Your task to perform on an android device: What's the weather? Image 0: 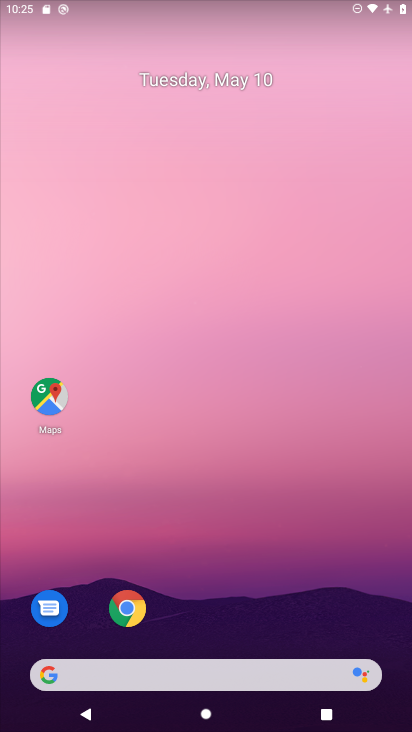
Step 0: drag from (227, 575) to (200, 267)
Your task to perform on an android device: What's the weather? Image 1: 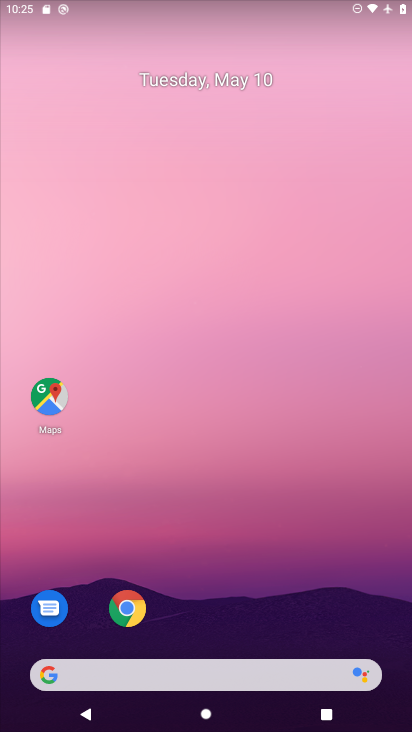
Step 1: drag from (245, 614) to (205, 193)
Your task to perform on an android device: What's the weather? Image 2: 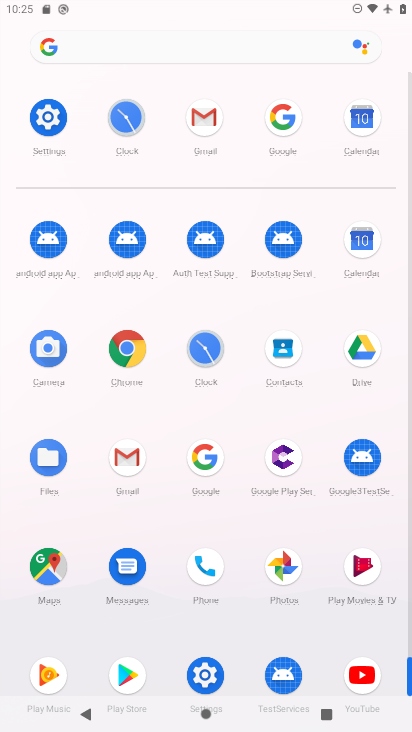
Step 2: click (133, 337)
Your task to perform on an android device: What's the weather? Image 3: 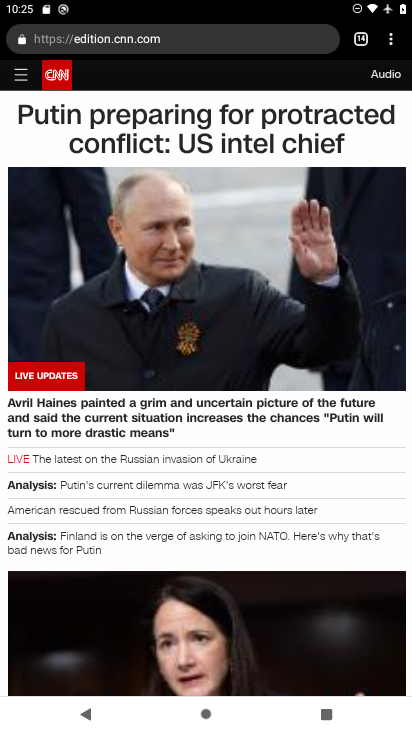
Step 3: click (380, 38)
Your task to perform on an android device: What's the weather? Image 4: 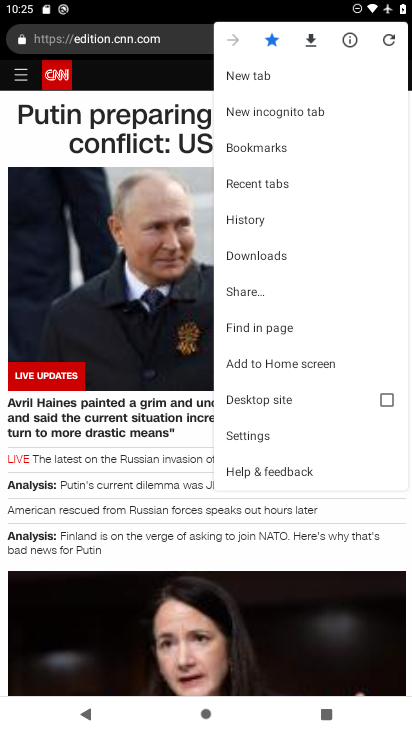
Step 4: click (243, 76)
Your task to perform on an android device: What's the weather? Image 5: 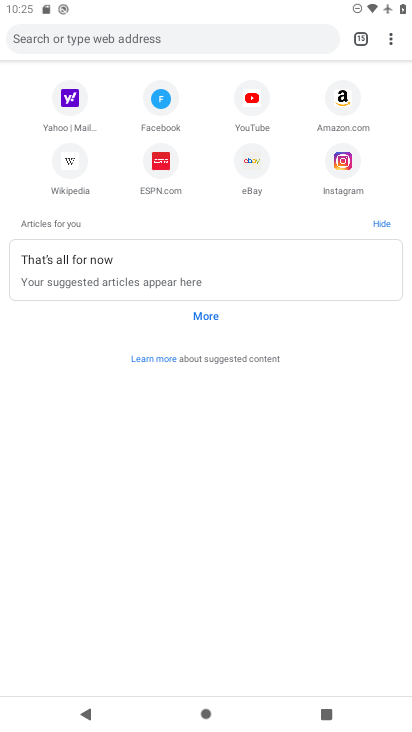
Step 5: click (140, 32)
Your task to perform on an android device: What's the weather? Image 6: 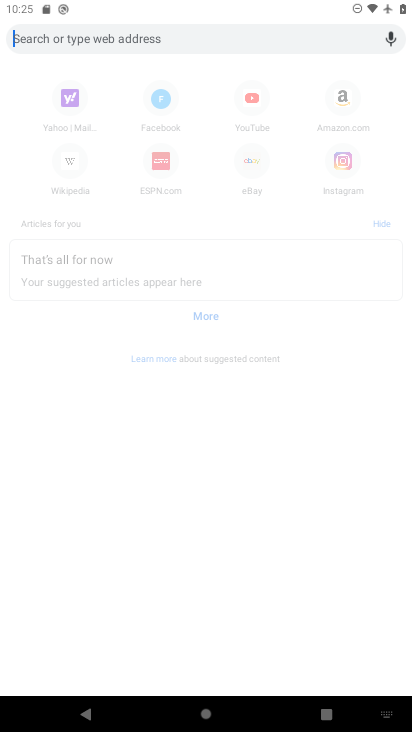
Step 6: click (154, 27)
Your task to perform on an android device: What's the weather? Image 7: 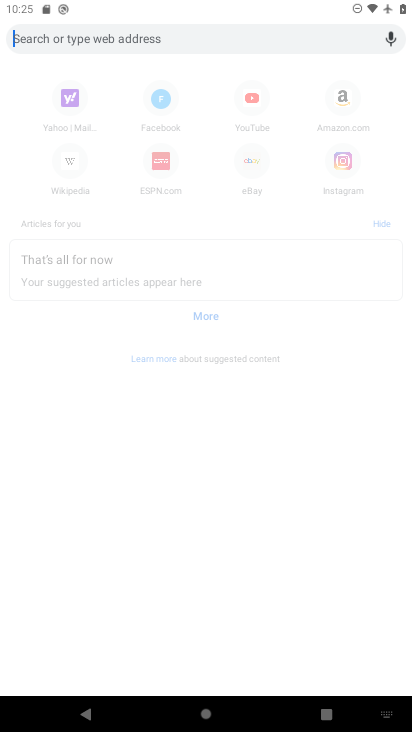
Step 7: type "What's the weather?"
Your task to perform on an android device: What's the weather? Image 8: 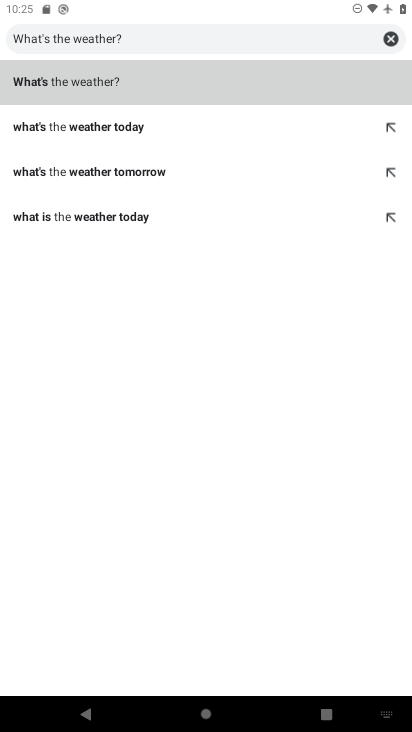
Step 8: click (138, 80)
Your task to perform on an android device: What's the weather? Image 9: 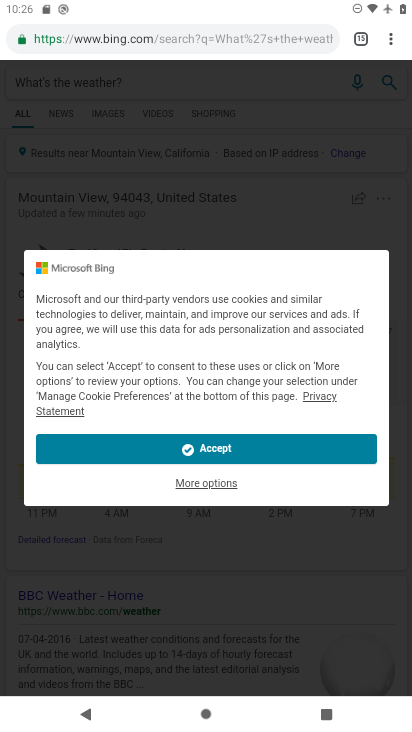
Step 9: click (250, 452)
Your task to perform on an android device: What's the weather? Image 10: 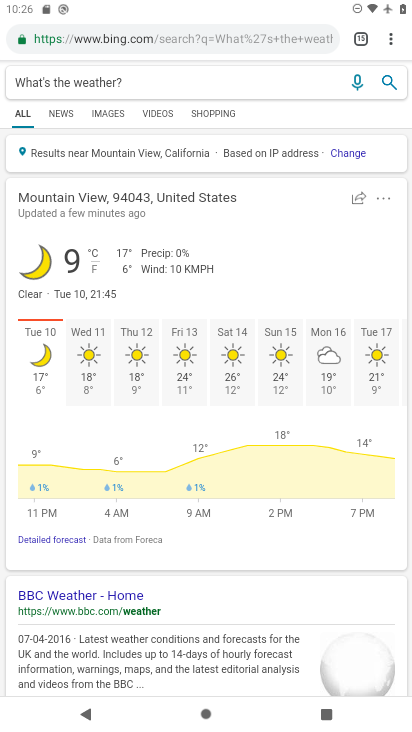
Step 10: task complete